Your task to perform on an android device: Open maps Image 0: 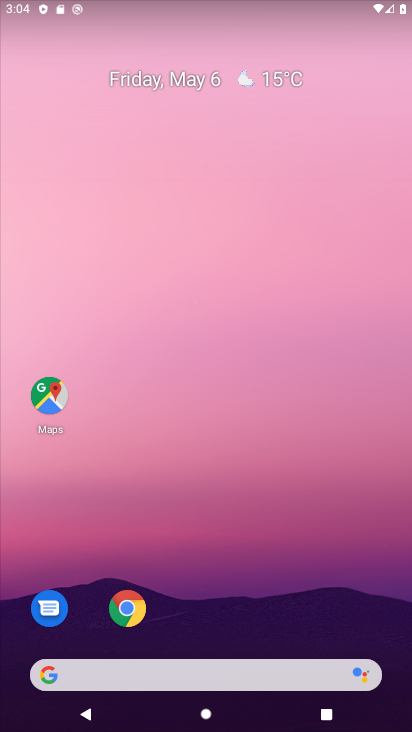
Step 0: click (40, 396)
Your task to perform on an android device: Open maps Image 1: 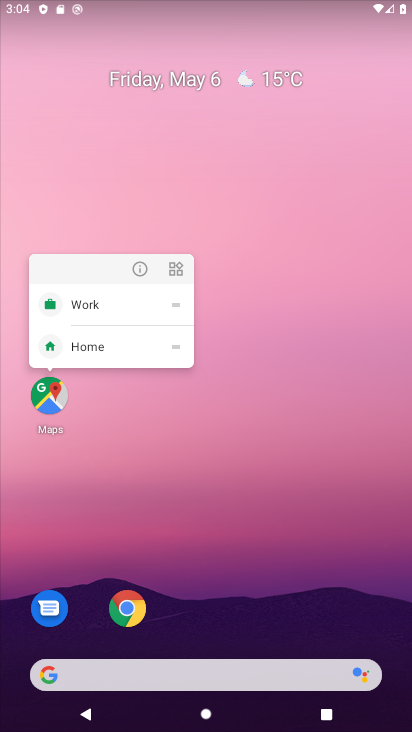
Step 1: click (41, 397)
Your task to perform on an android device: Open maps Image 2: 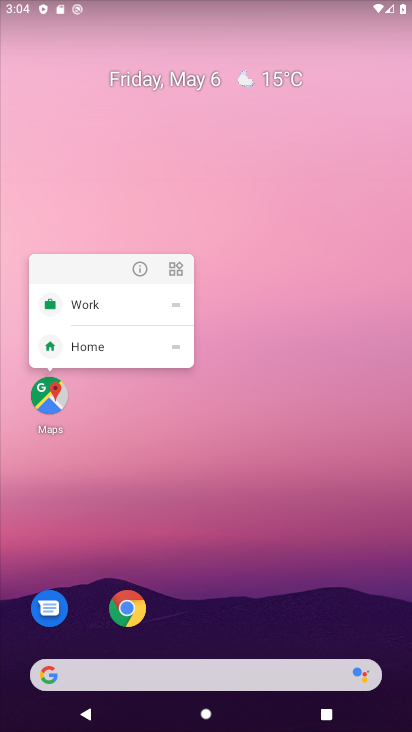
Step 2: click (43, 400)
Your task to perform on an android device: Open maps Image 3: 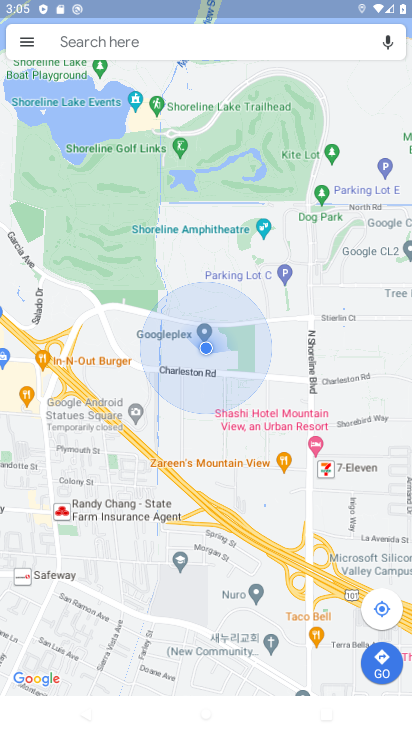
Step 3: task complete